Your task to perform on an android device: turn off picture-in-picture Image 0: 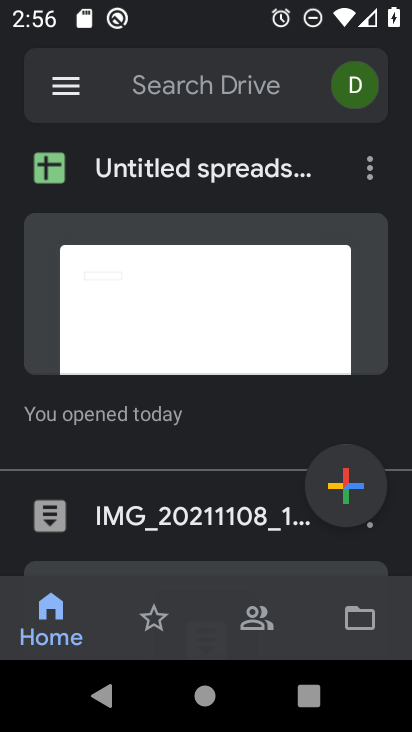
Step 0: press home button
Your task to perform on an android device: turn off picture-in-picture Image 1: 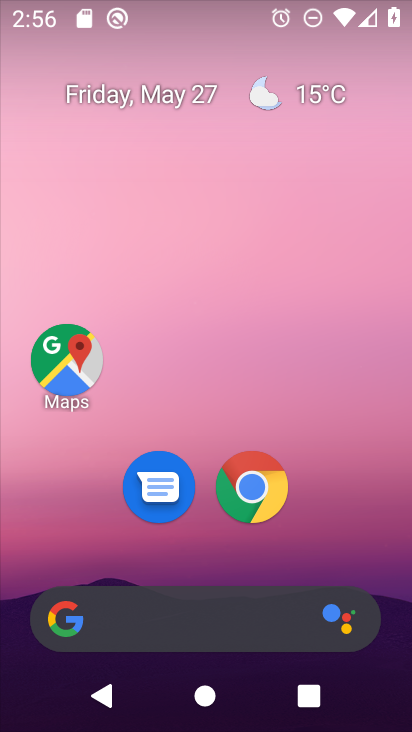
Step 1: click (256, 489)
Your task to perform on an android device: turn off picture-in-picture Image 2: 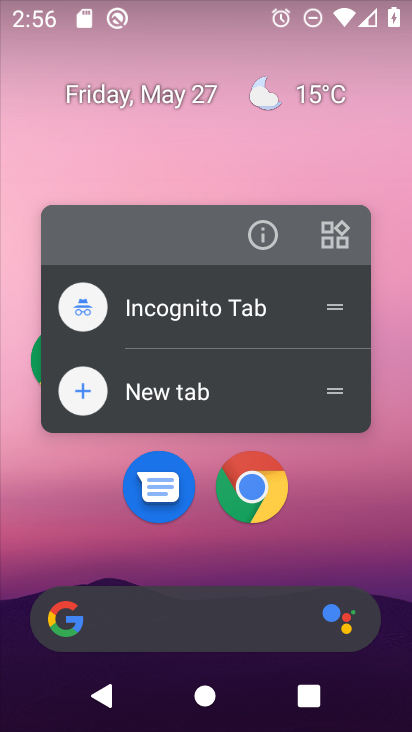
Step 2: click (264, 240)
Your task to perform on an android device: turn off picture-in-picture Image 3: 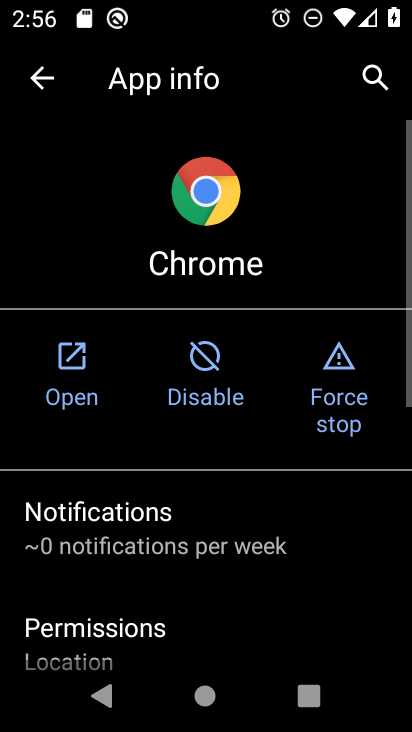
Step 3: drag from (224, 591) to (154, 84)
Your task to perform on an android device: turn off picture-in-picture Image 4: 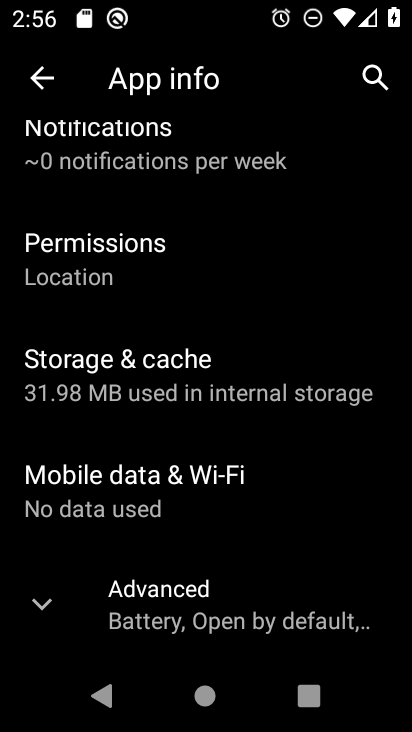
Step 4: click (228, 623)
Your task to perform on an android device: turn off picture-in-picture Image 5: 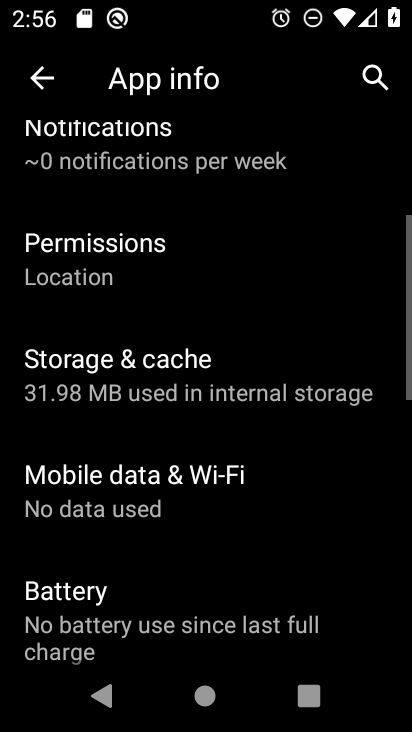
Step 5: drag from (229, 626) to (198, 254)
Your task to perform on an android device: turn off picture-in-picture Image 6: 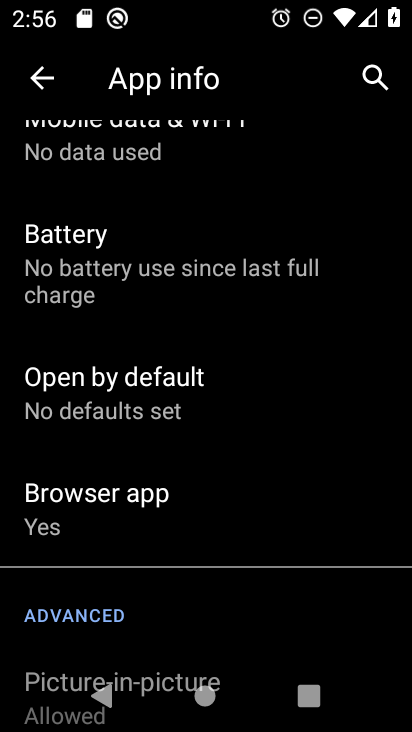
Step 6: drag from (133, 669) to (126, 265)
Your task to perform on an android device: turn off picture-in-picture Image 7: 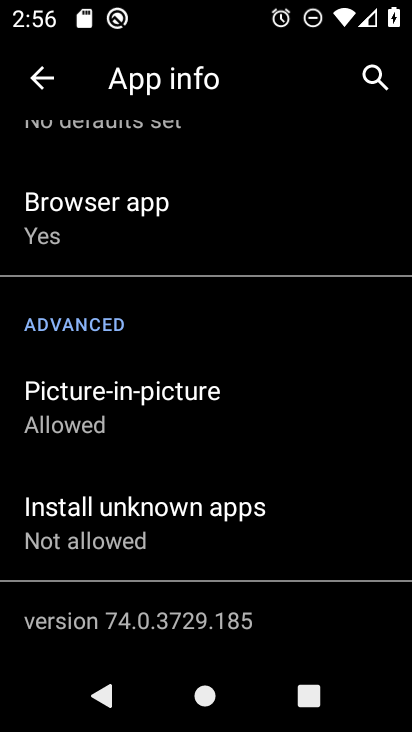
Step 7: click (197, 435)
Your task to perform on an android device: turn off picture-in-picture Image 8: 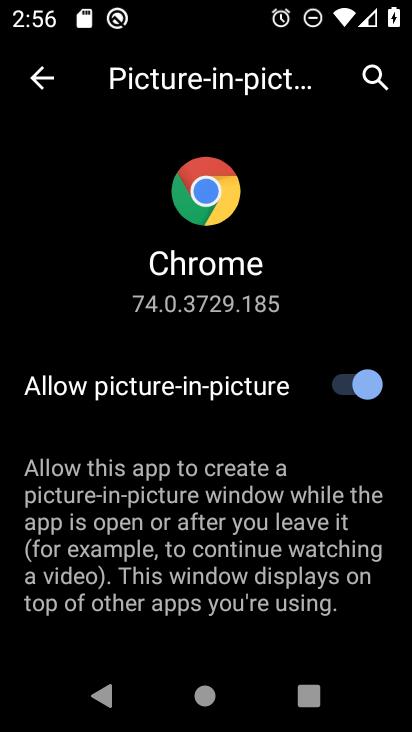
Step 8: click (365, 384)
Your task to perform on an android device: turn off picture-in-picture Image 9: 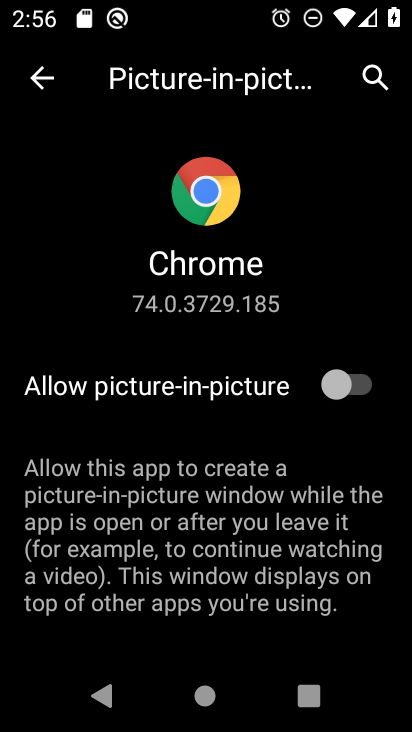
Step 9: task complete